Your task to perform on an android device: change text size in settings app Image 0: 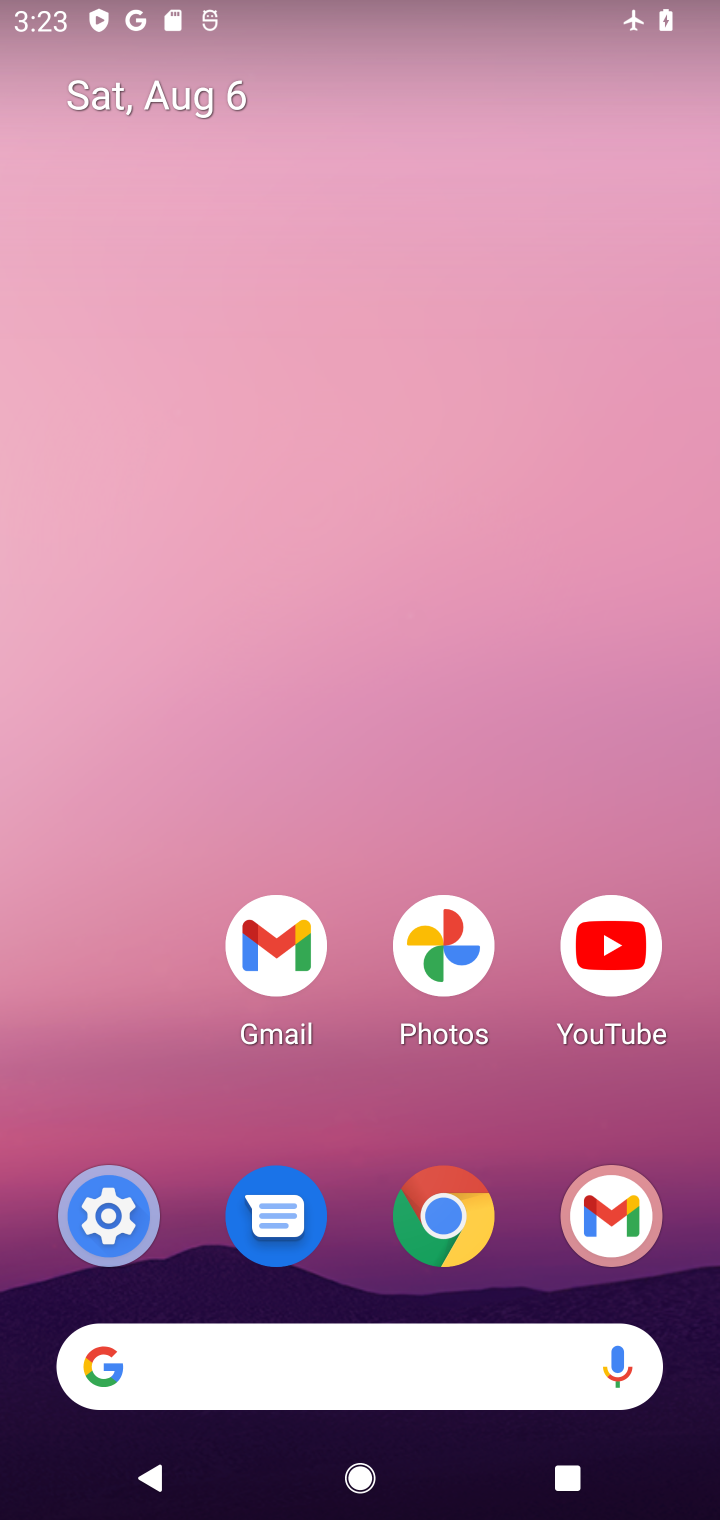
Step 0: click (117, 1249)
Your task to perform on an android device: change text size in settings app Image 1: 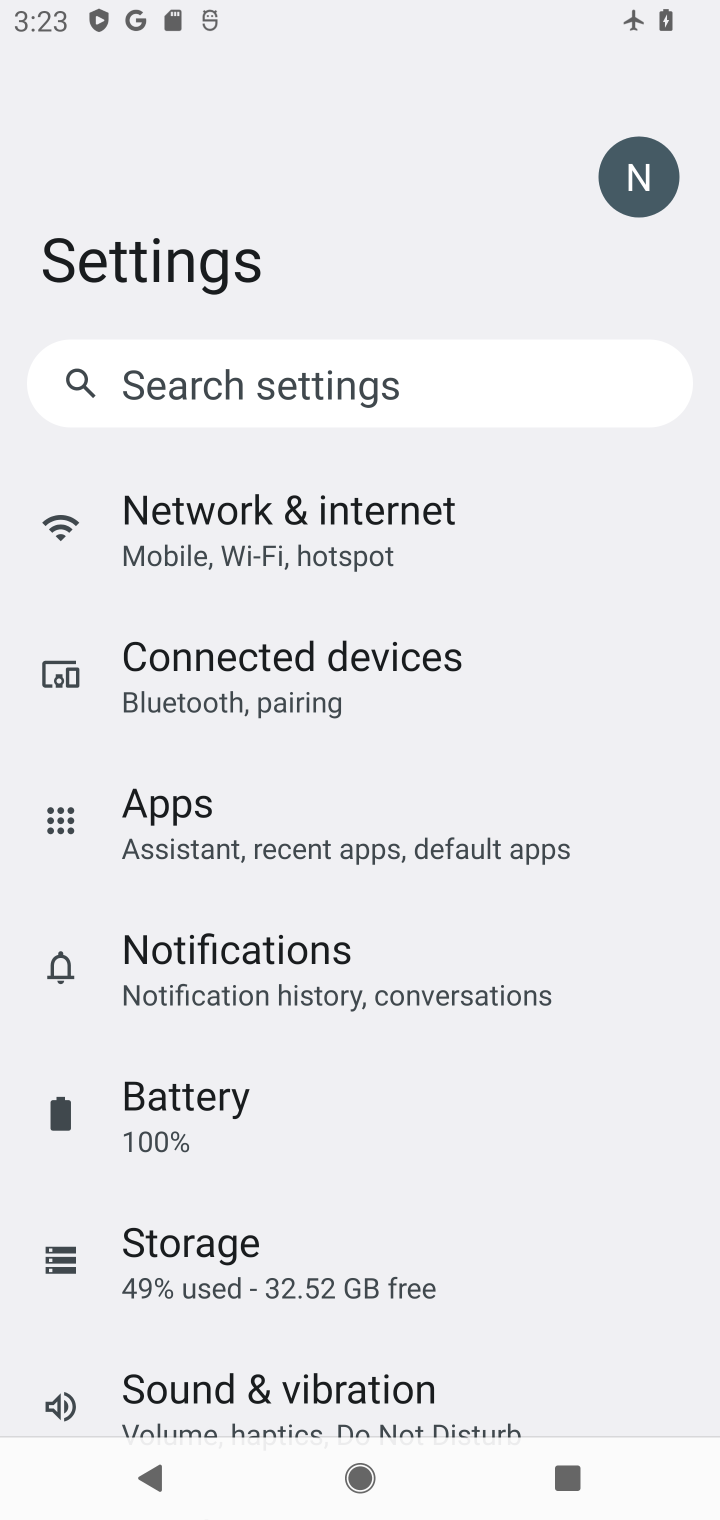
Step 1: drag from (436, 1349) to (414, 632)
Your task to perform on an android device: change text size in settings app Image 2: 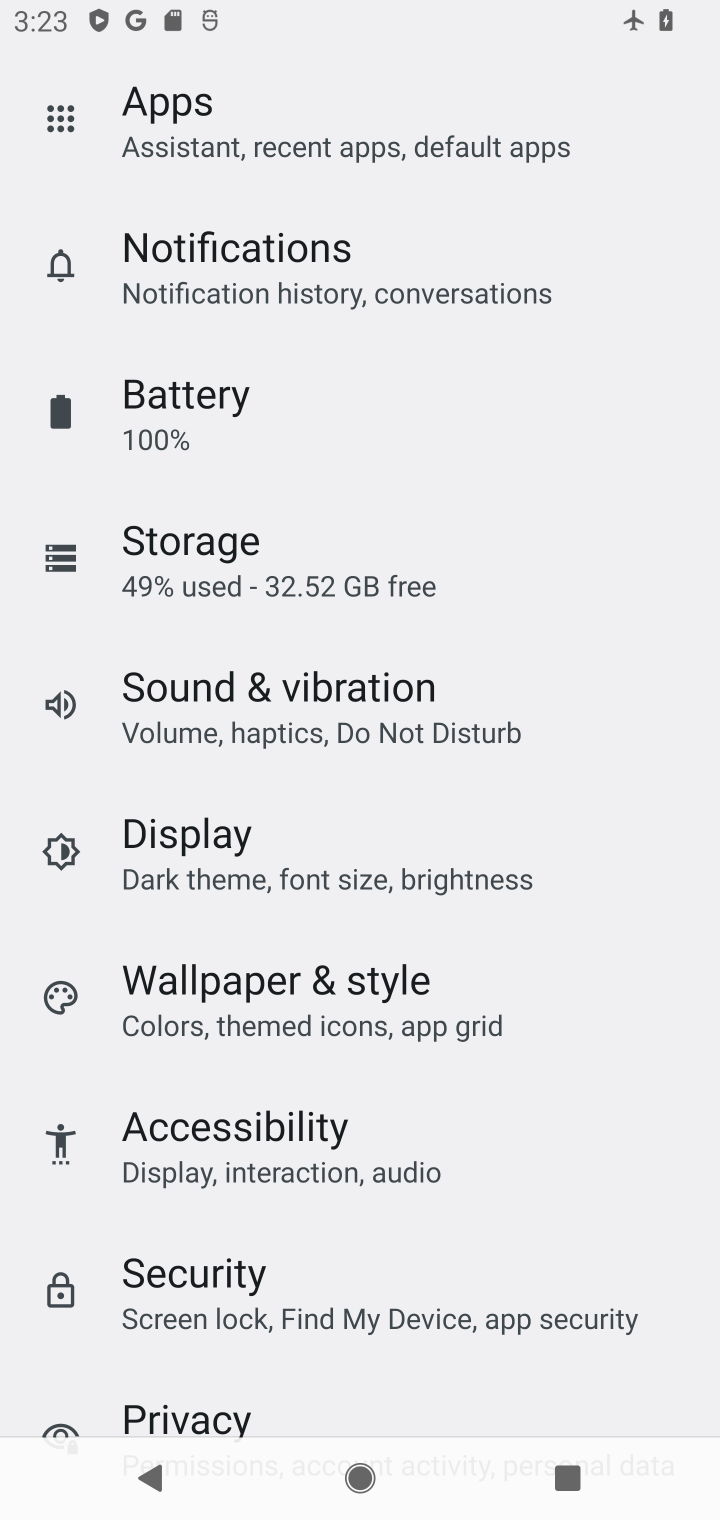
Step 2: click (282, 852)
Your task to perform on an android device: change text size in settings app Image 3: 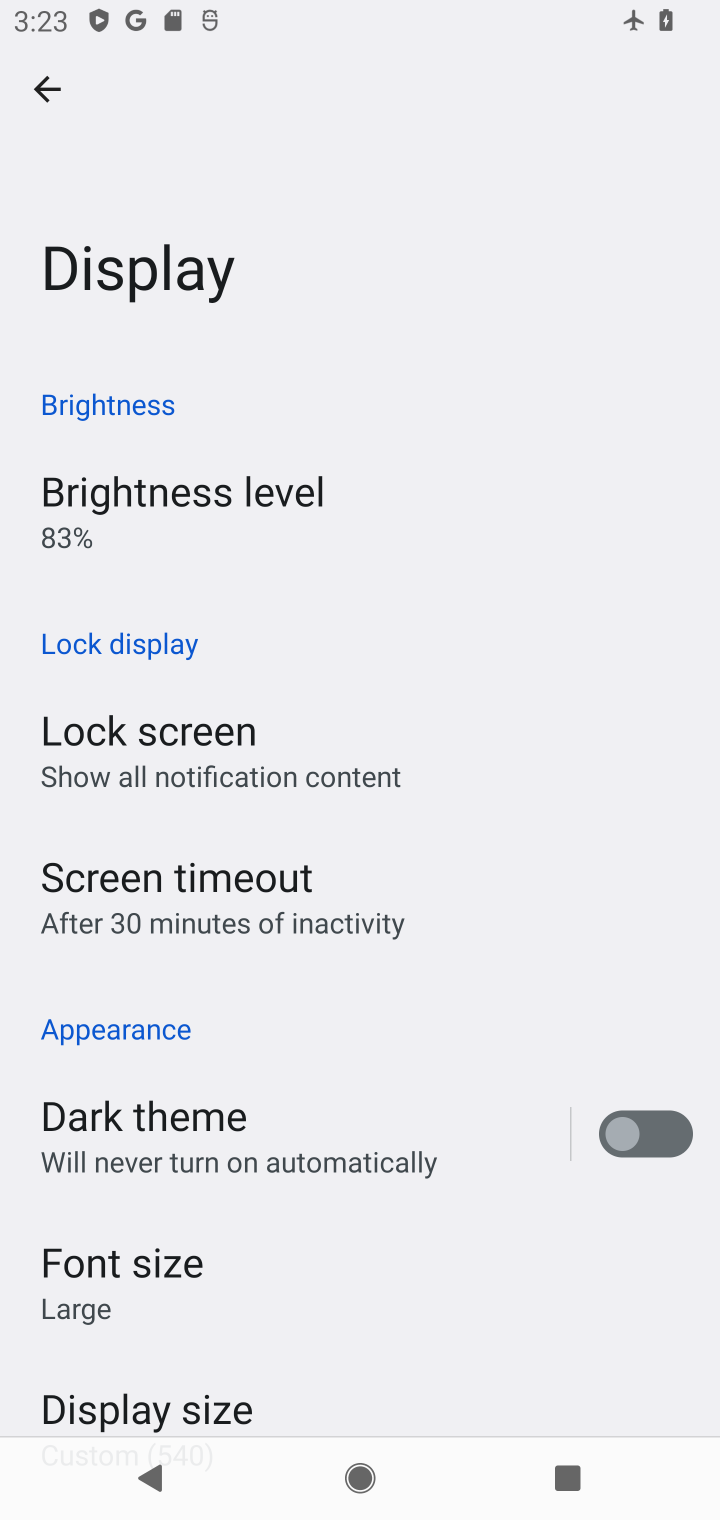
Step 3: click (241, 1289)
Your task to perform on an android device: change text size in settings app Image 4: 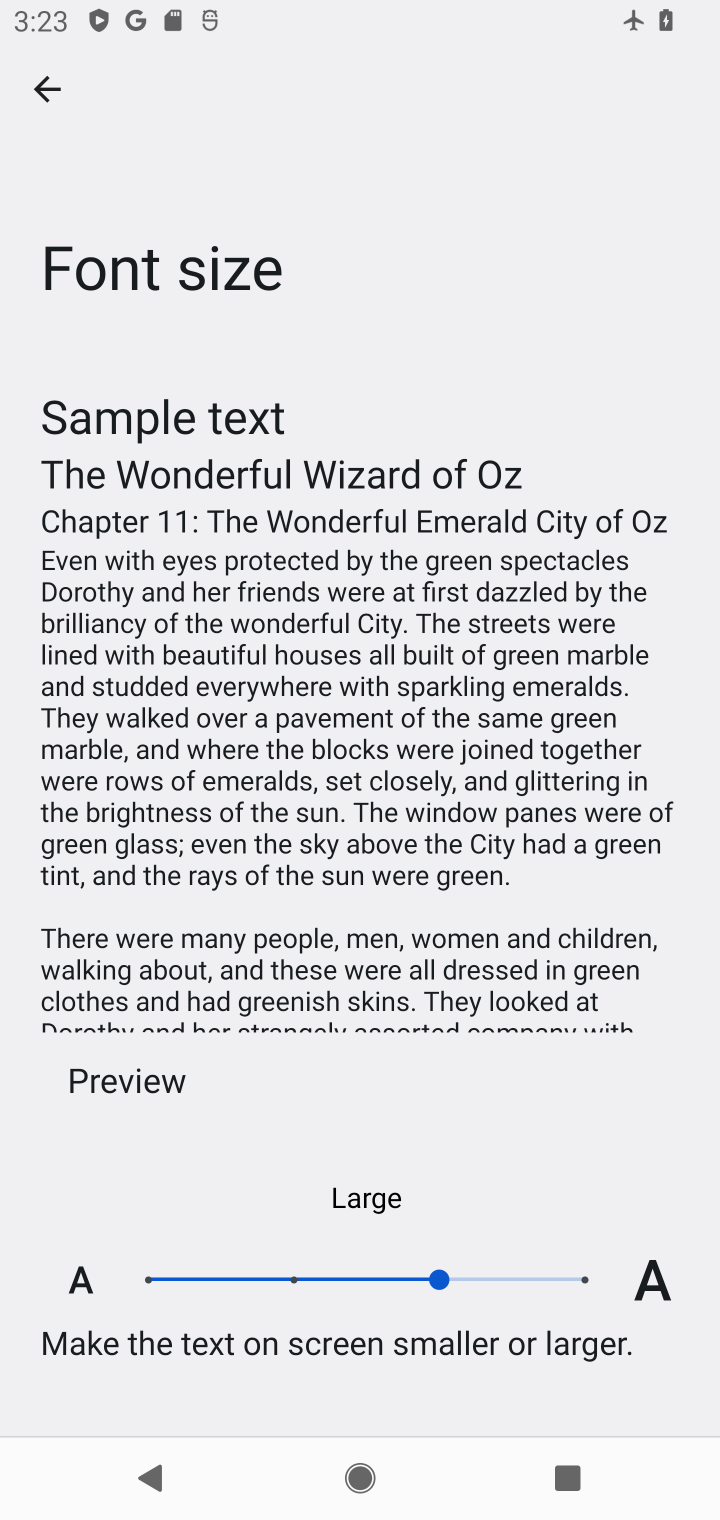
Step 4: click (569, 1281)
Your task to perform on an android device: change text size in settings app Image 5: 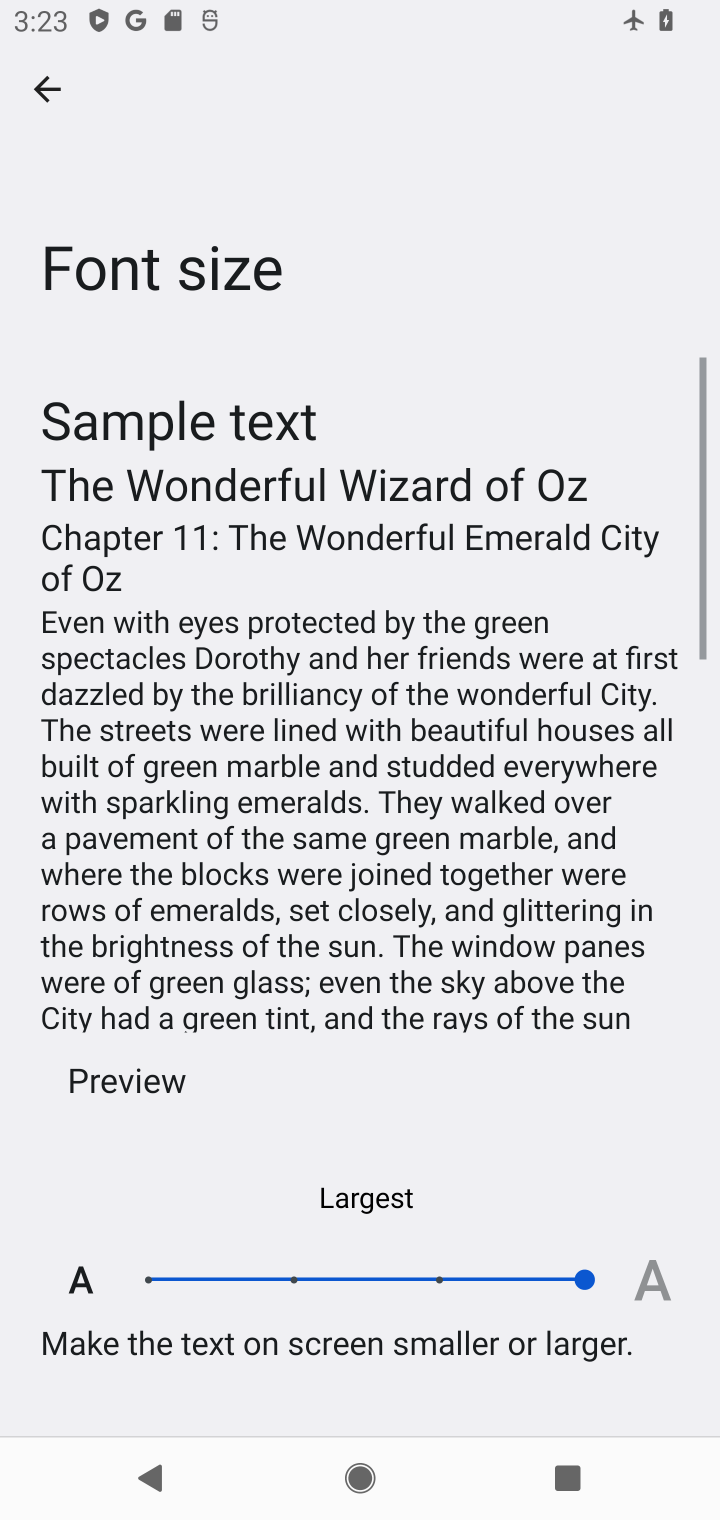
Step 5: task complete